Your task to perform on an android device: Go to CNN.com Image 0: 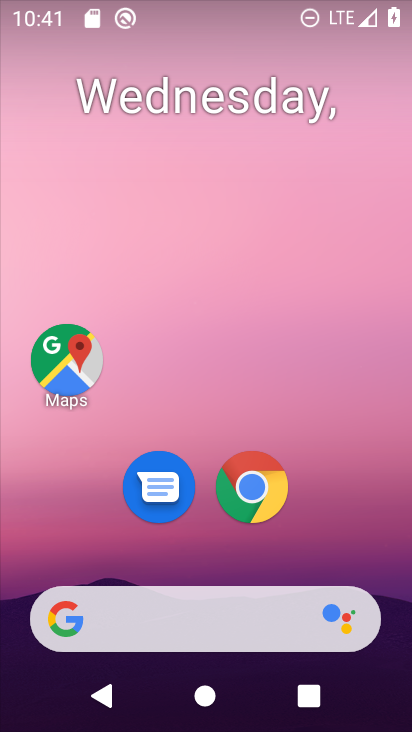
Step 0: click (256, 486)
Your task to perform on an android device: Go to CNN.com Image 1: 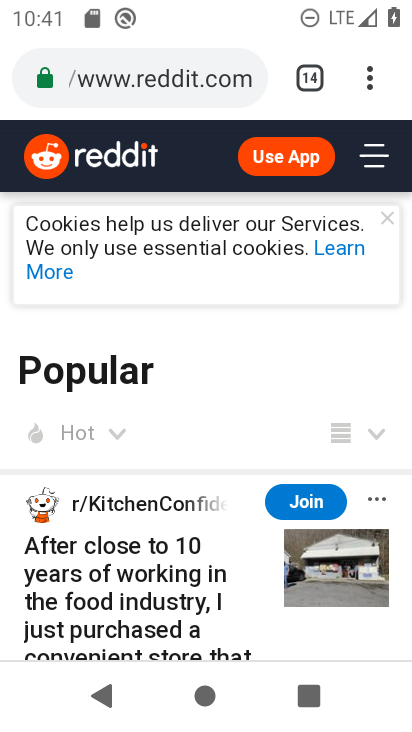
Step 1: click (372, 70)
Your task to perform on an android device: Go to CNN.com Image 2: 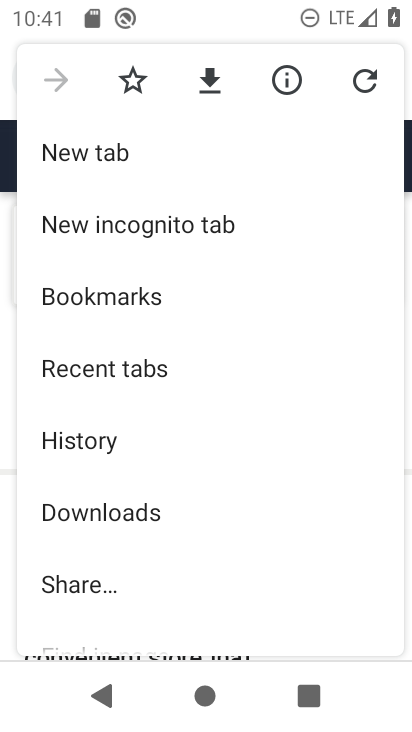
Step 2: click (117, 154)
Your task to perform on an android device: Go to CNN.com Image 3: 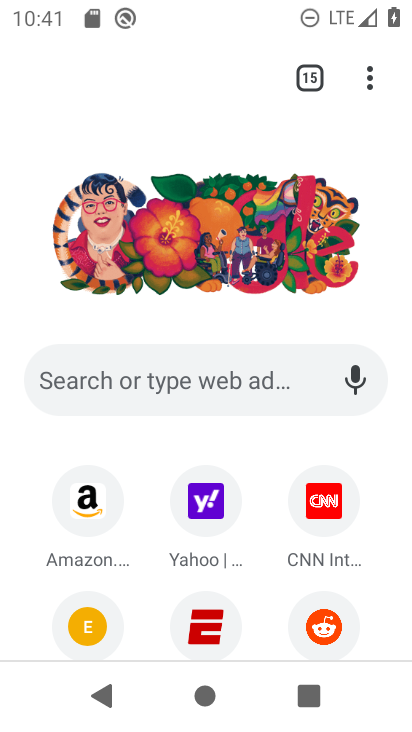
Step 3: click (190, 366)
Your task to perform on an android device: Go to CNN.com Image 4: 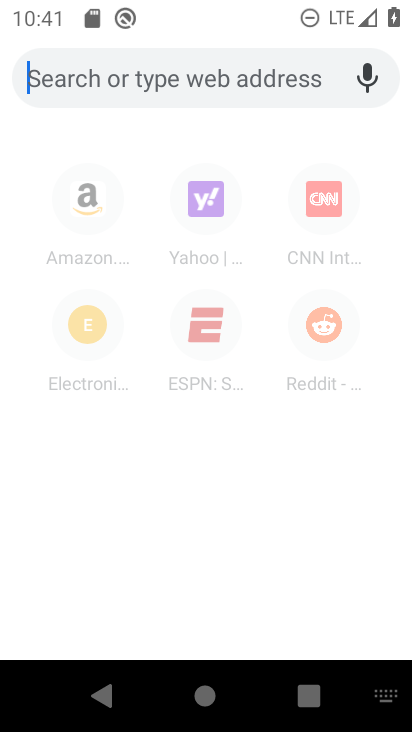
Step 4: type "cnn.com"
Your task to perform on an android device: Go to CNN.com Image 5: 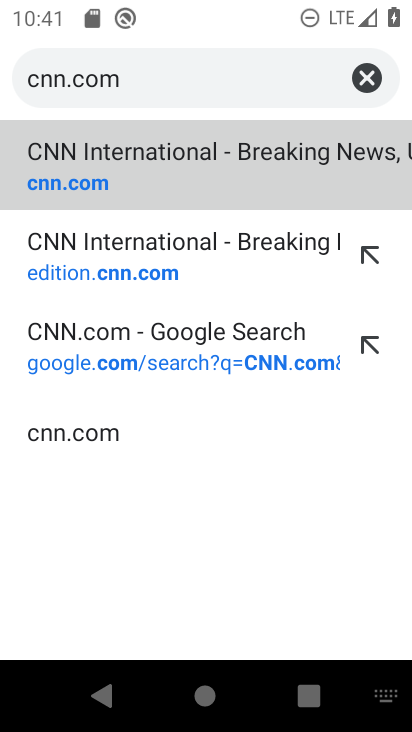
Step 5: click (145, 148)
Your task to perform on an android device: Go to CNN.com Image 6: 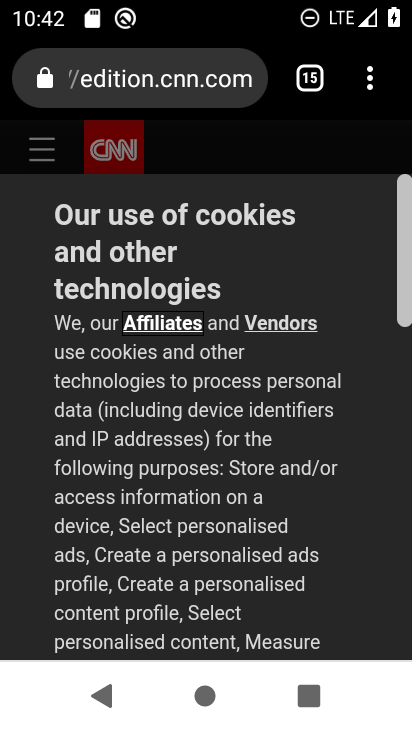
Step 6: task complete